Your task to perform on an android device: Go to Google maps Image 0: 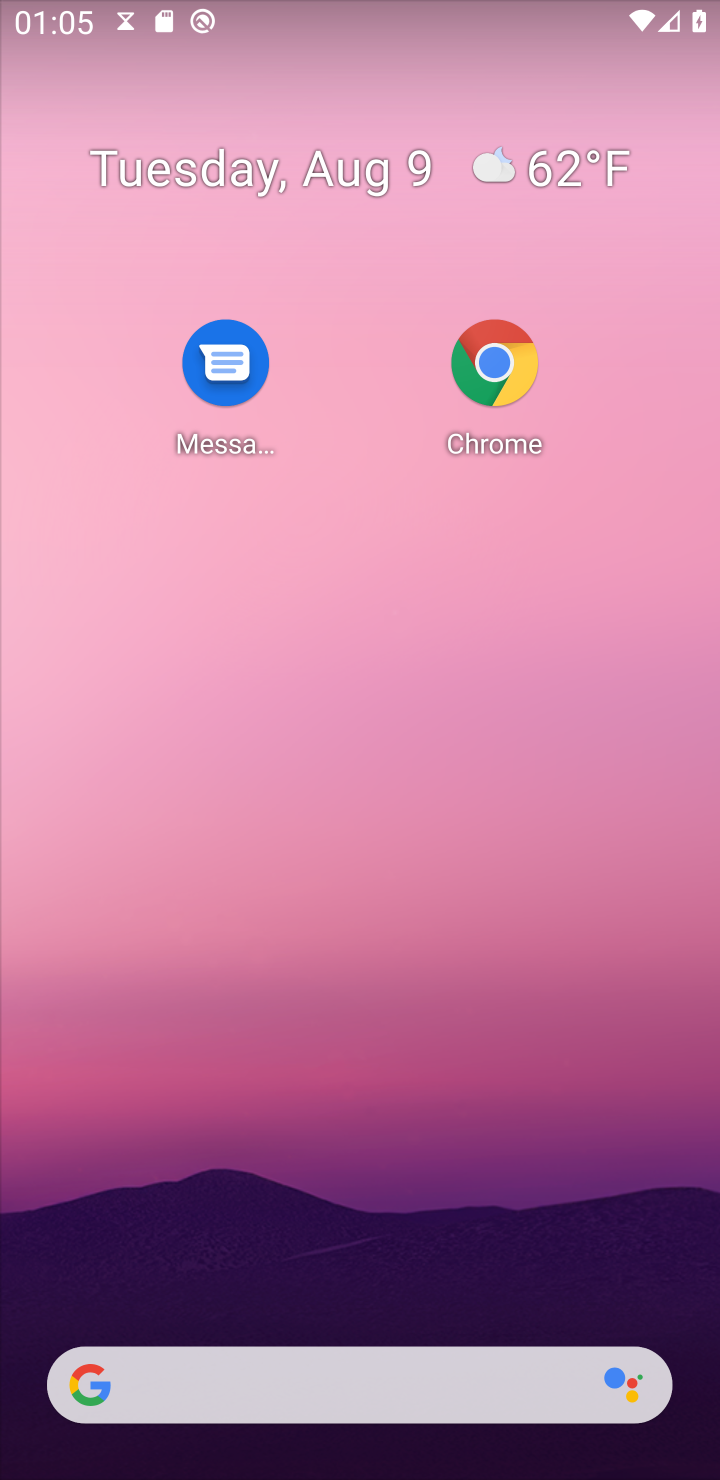
Step 0: drag from (209, 1242) to (521, 376)
Your task to perform on an android device: Go to Google maps Image 1: 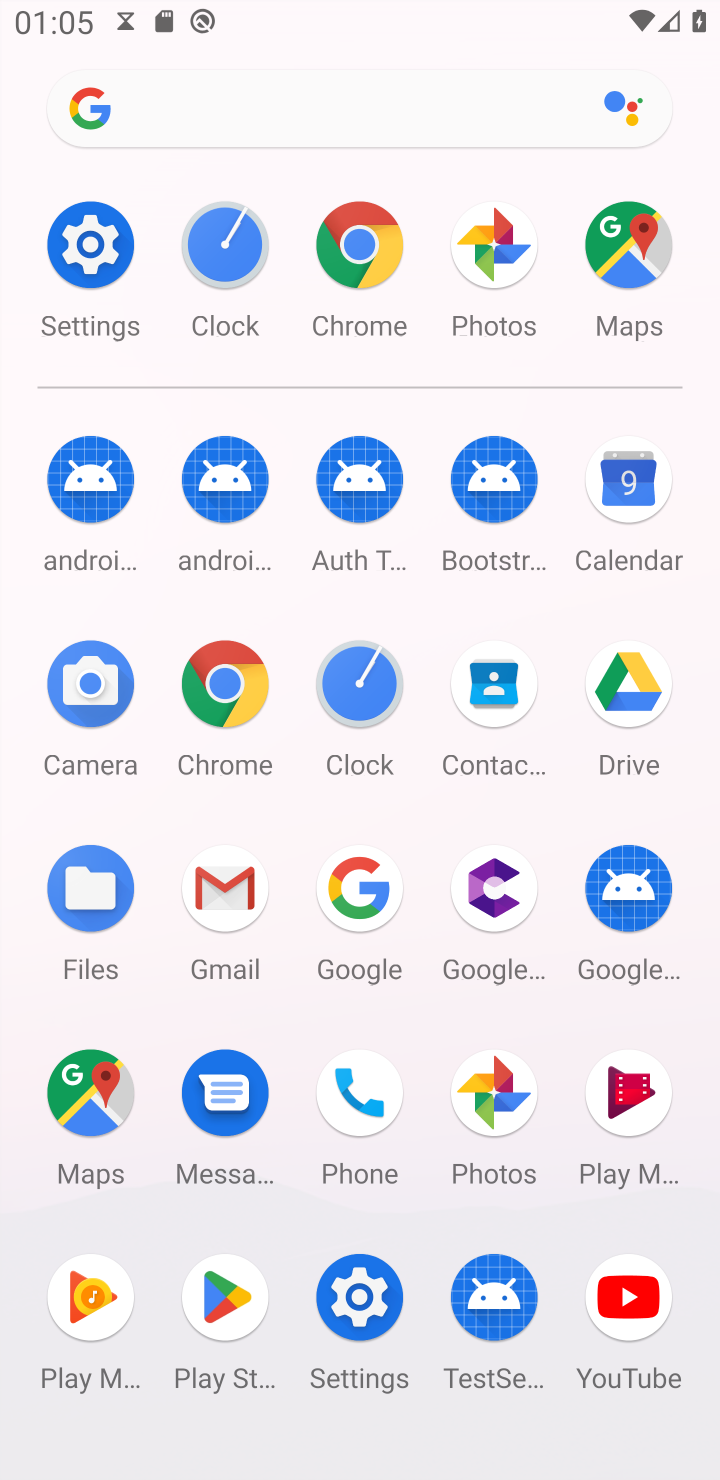
Step 1: click (58, 1083)
Your task to perform on an android device: Go to Google maps Image 2: 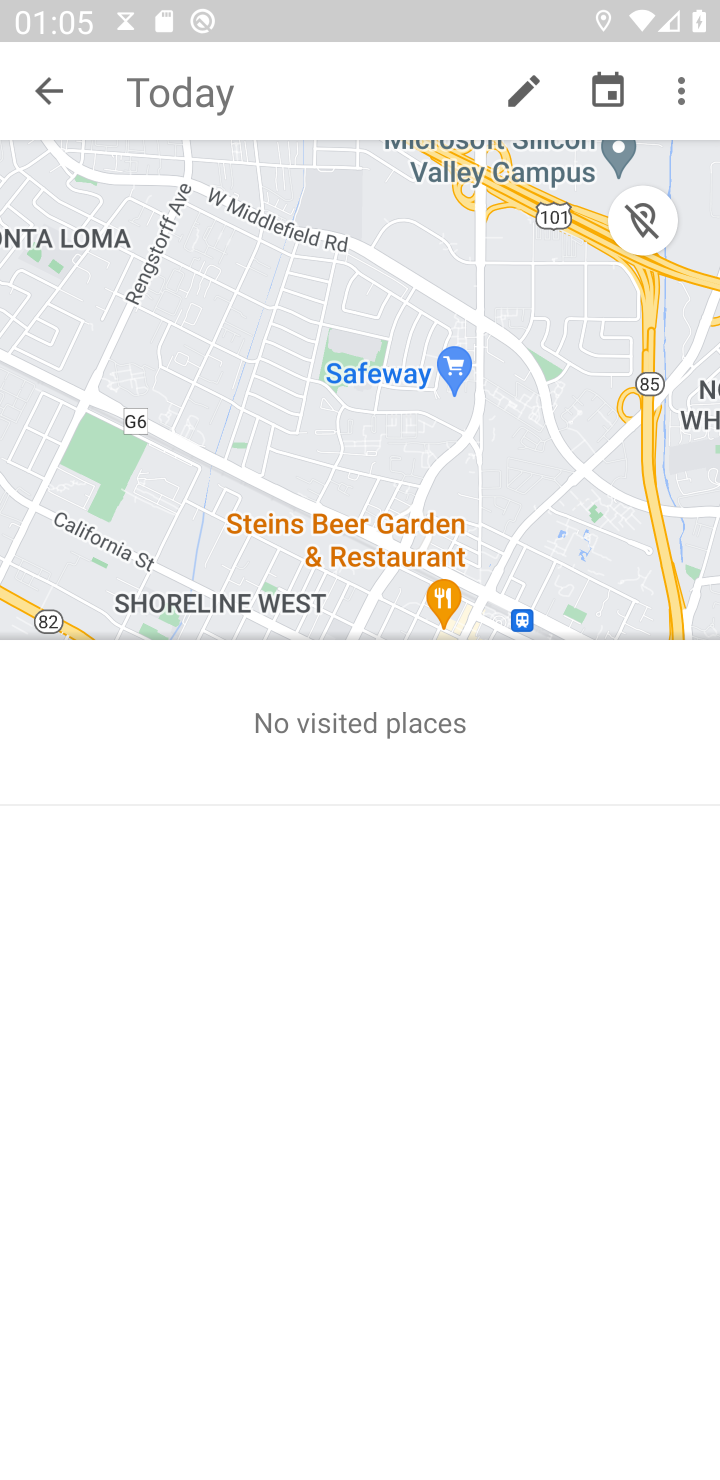
Step 2: click (39, 89)
Your task to perform on an android device: Go to Google maps Image 3: 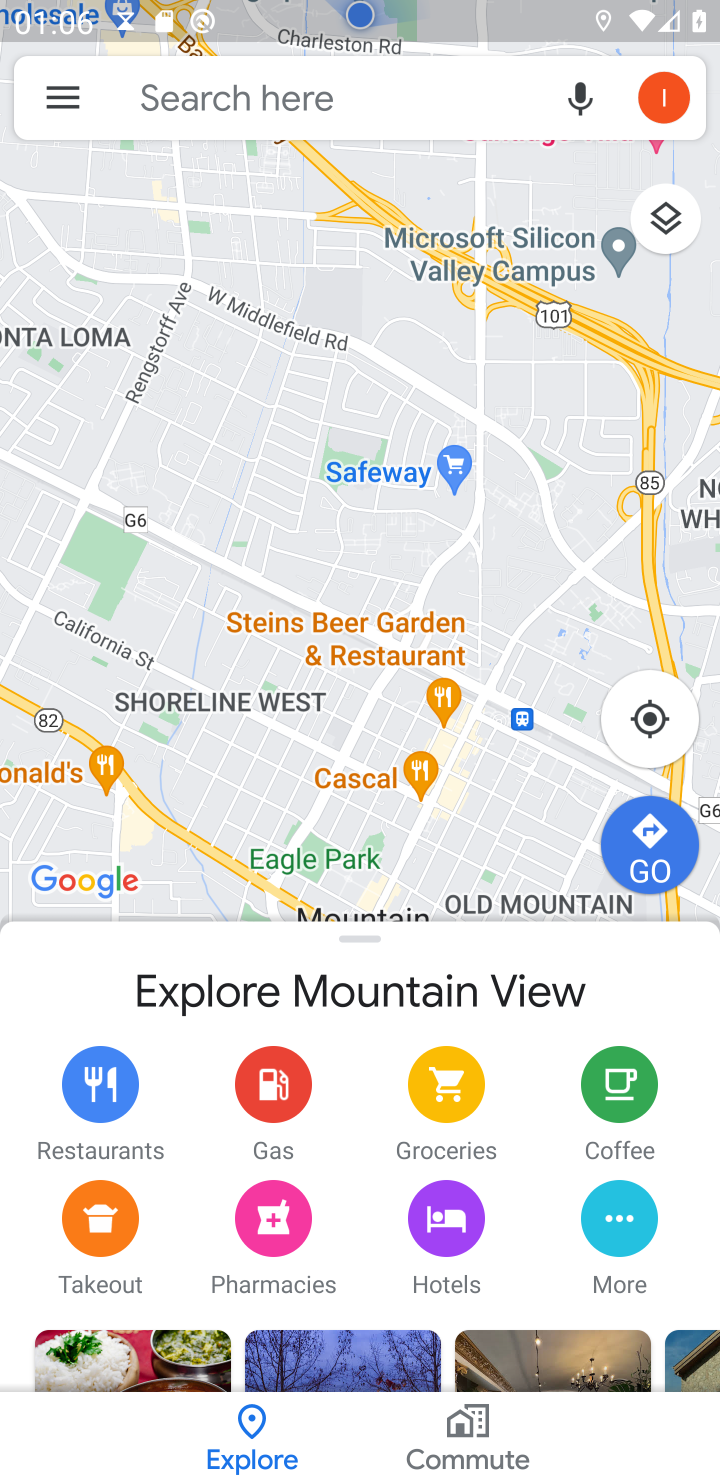
Step 3: task complete